Your task to perform on an android device: search for starred emails in the gmail app Image 0: 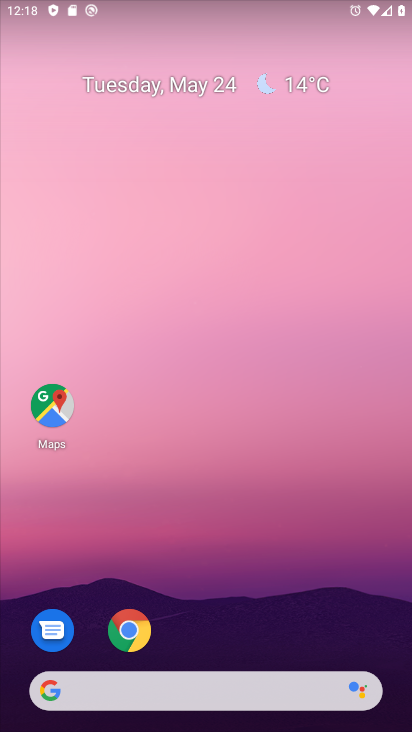
Step 0: drag from (344, 583) to (317, 68)
Your task to perform on an android device: search for starred emails in the gmail app Image 1: 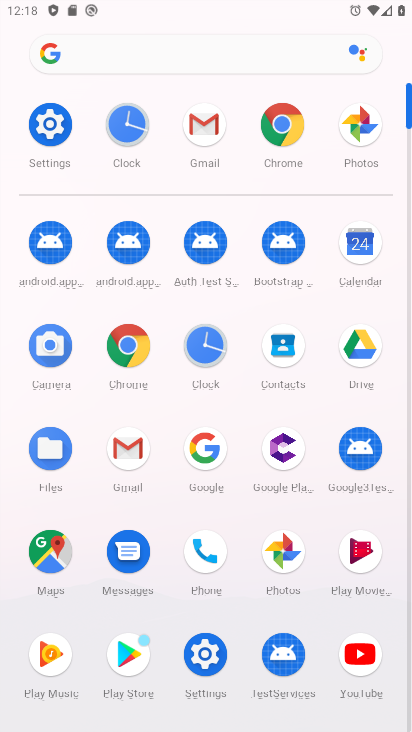
Step 1: click (133, 441)
Your task to perform on an android device: search for starred emails in the gmail app Image 2: 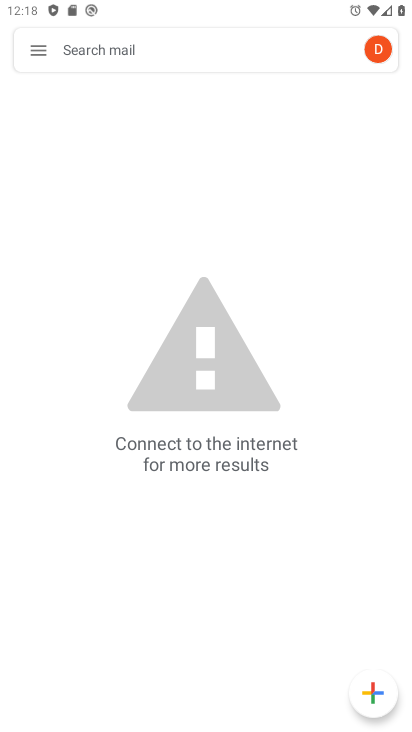
Step 2: click (41, 47)
Your task to perform on an android device: search for starred emails in the gmail app Image 3: 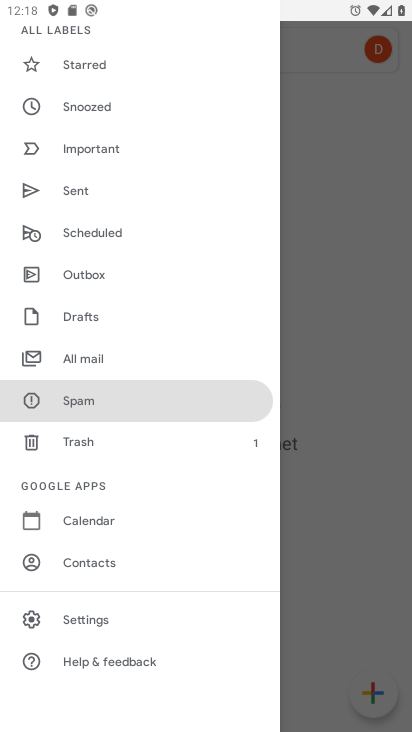
Step 3: click (118, 64)
Your task to perform on an android device: search for starred emails in the gmail app Image 4: 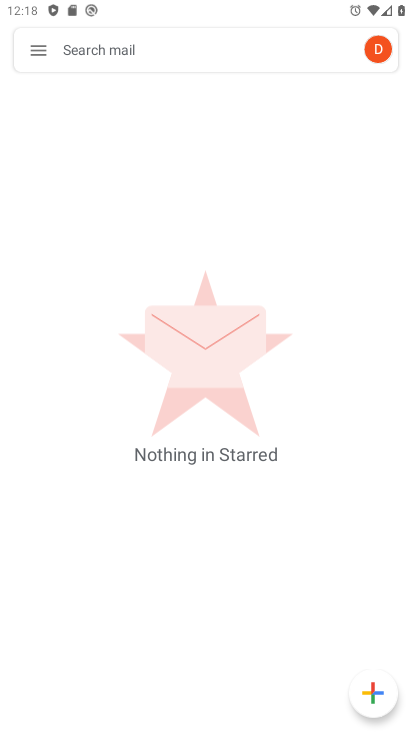
Step 4: task complete